Your task to perform on an android device: Go to Google maps Image 0: 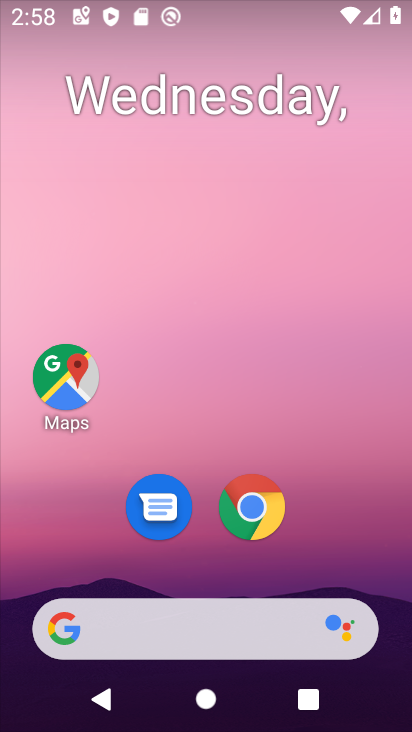
Step 0: click (49, 412)
Your task to perform on an android device: Go to Google maps Image 1: 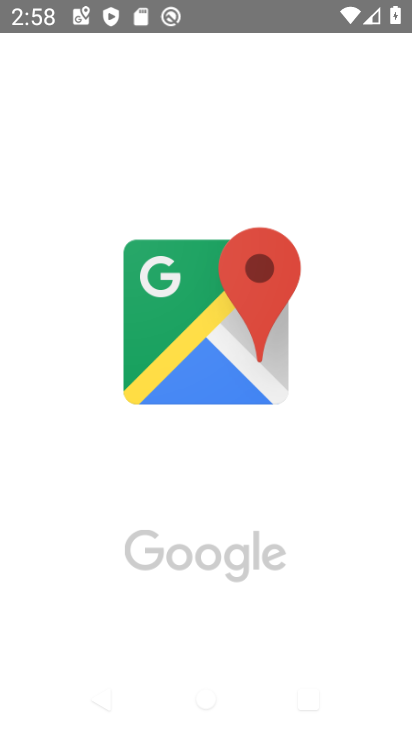
Step 1: task complete